Your task to perform on an android device: Go to wifi settings Image 0: 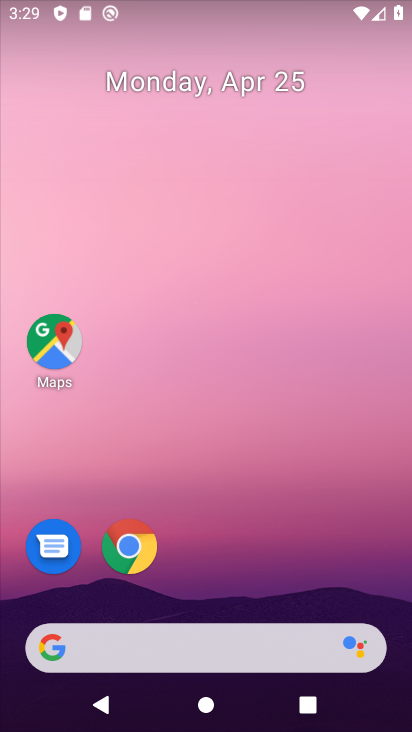
Step 0: drag from (184, 634) to (260, 118)
Your task to perform on an android device: Go to wifi settings Image 1: 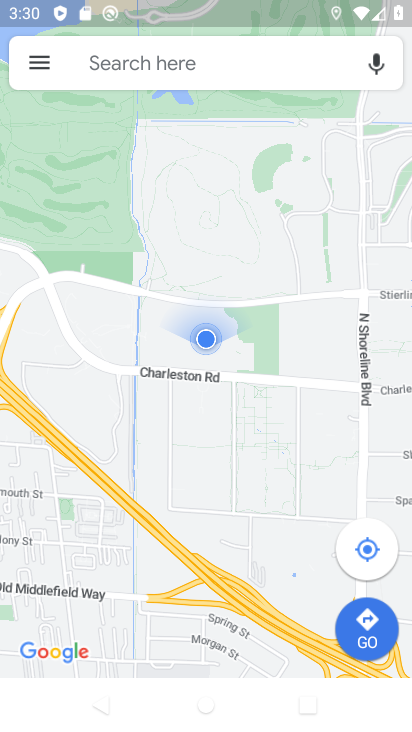
Step 1: press back button
Your task to perform on an android device: Go to wifi settings Image 2: 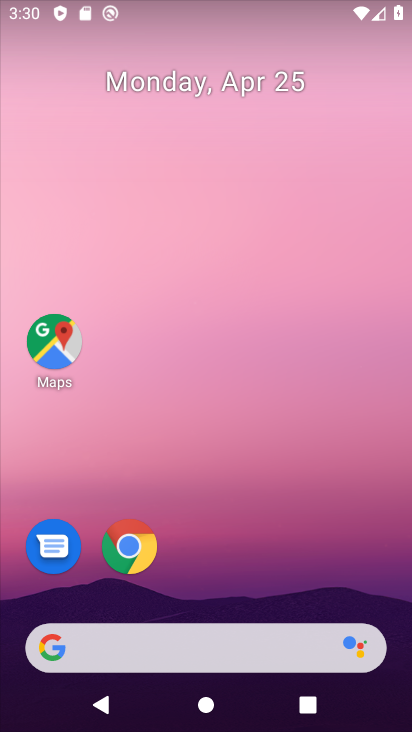
Step 2: drag from (231, 552) to (299, 44)
Your task to perform on an android device: Go to wifi settings Image 3: 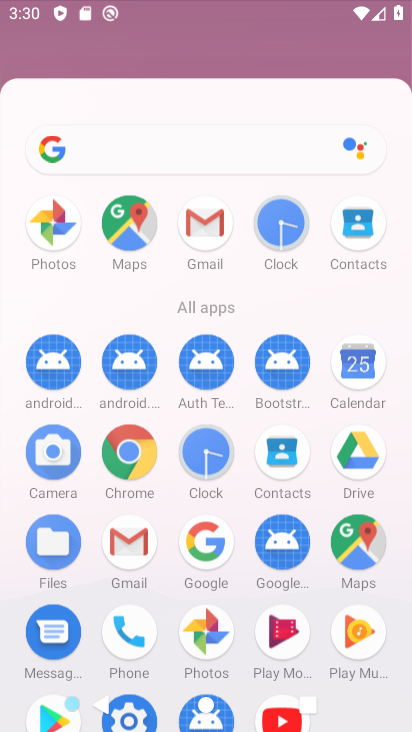
Step 3: click (296, 48)
Your task to perform on an android device: Go to wifi settings Image 4: 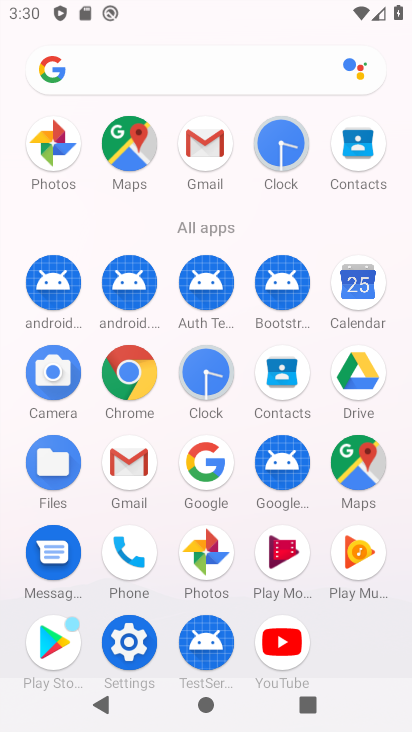
Step 4: click (135, 655)
Your task to perform on an android device: Go to wifi settings Image 5: 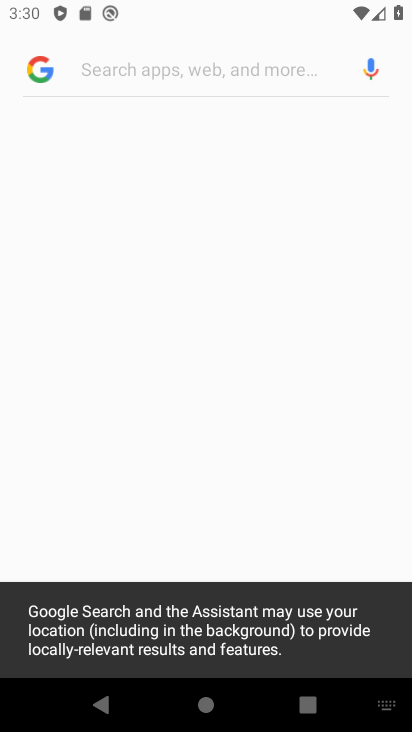
Step 5: press back button
Your task to perform on an android device: Go to wifi settings Image 6: 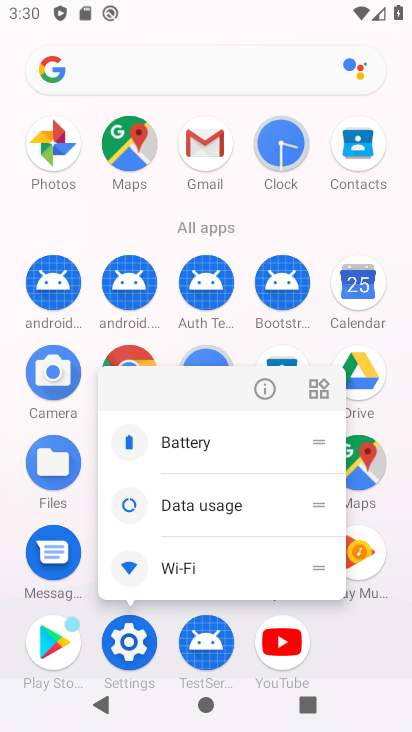
Step 6: click (132, 659)
Your task to perform on an android device: Go to wifi settings Image 7: 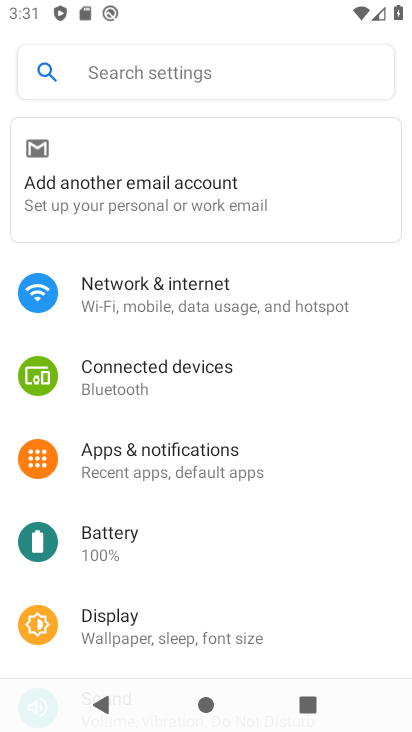
Step 7: click (222, 295)
Your task to perform on an android device: Go to wifi settings Image 8: 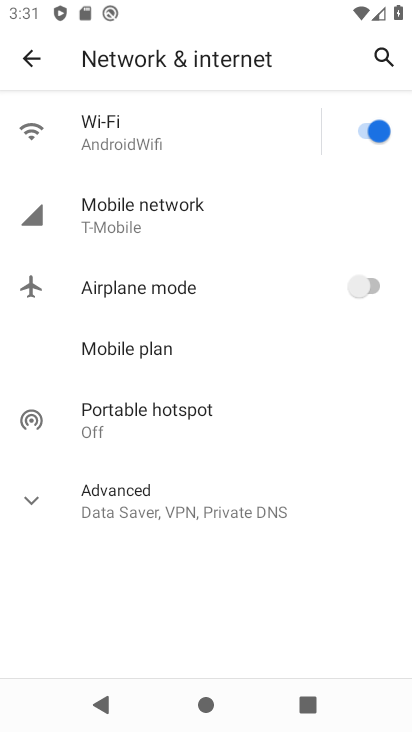
Step 8: click (221, 139)
Your task to perform on an android device: Go to wifi settings Image 9: 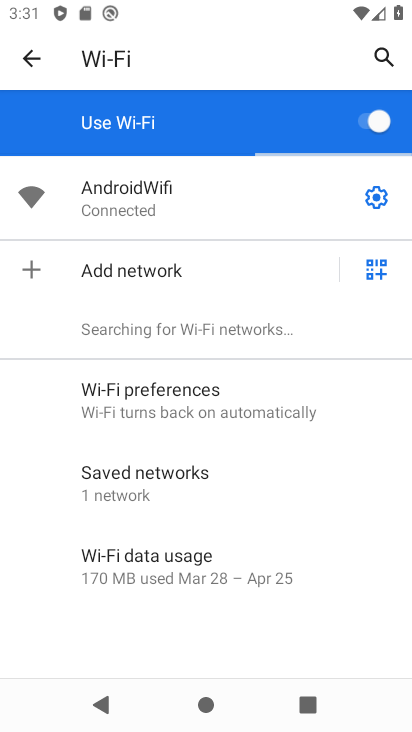
Step 9: task complete